Your task to perform on an android device: turn on wifi Image 0: 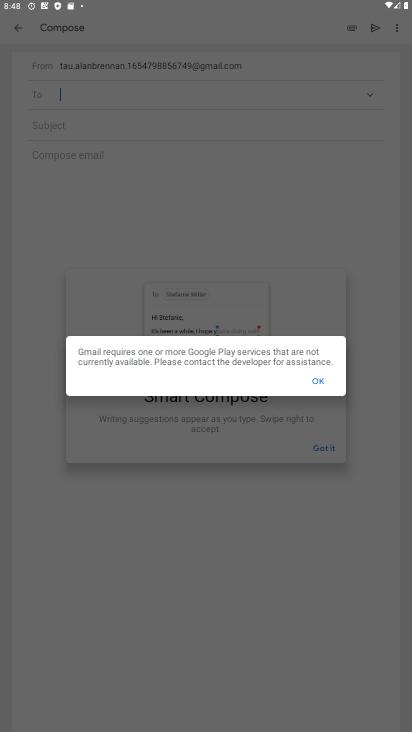
Step 0: press home button
Your task to perform on an android device: turn on wifi Image 1: 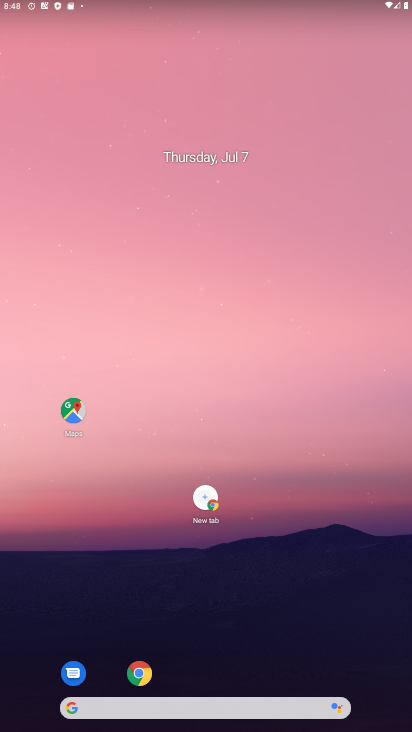
Step 1: task complete